Your task to perform on an android device: What's the weather? Image 0: 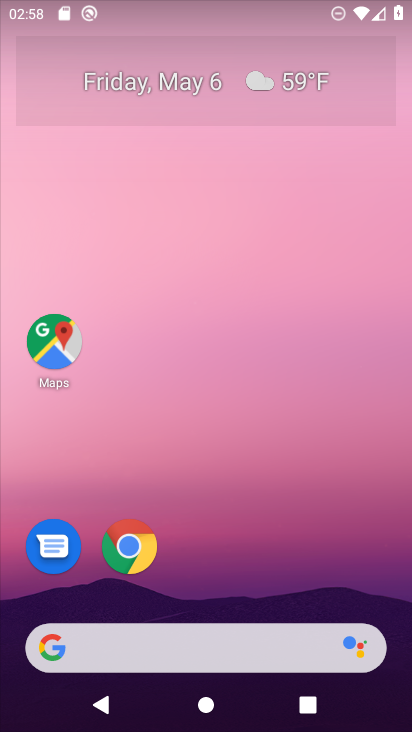
Step 0: click (299, 77)
Your task to perform on an android device: What's the weather? Image 1: 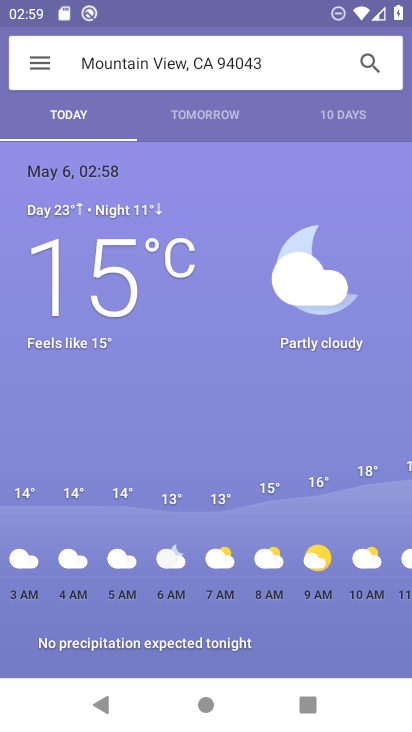
Step 1: task complete